Your task to perform on an android device: Check the weather Image 0: 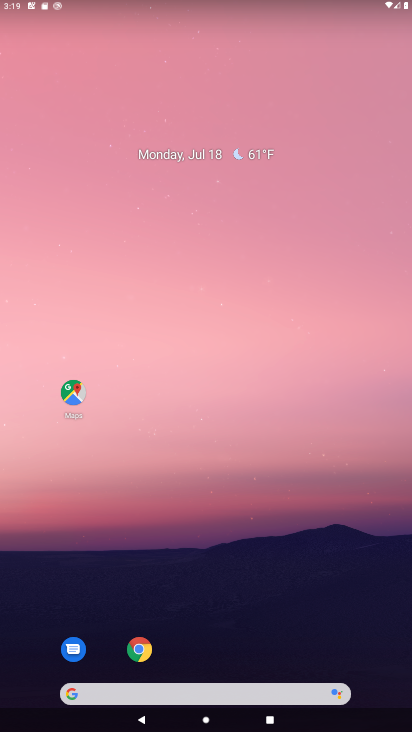
Step 0: click (146, 691)
Your task to perform on an android device: Check the weather Image 1: 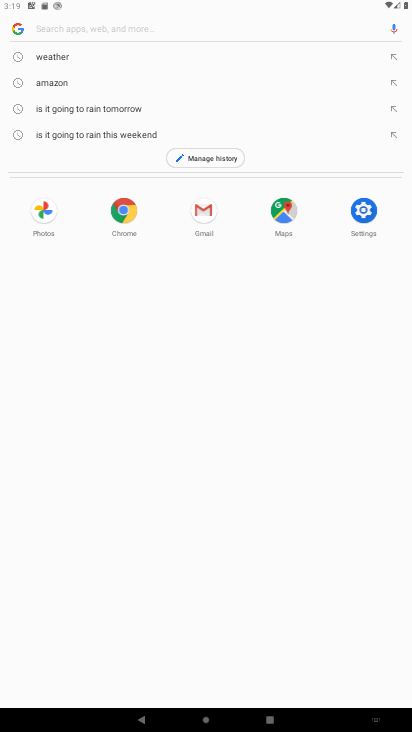
Step 1: type "weather"
Your task to perform on an android device: Check the weather Image 2: 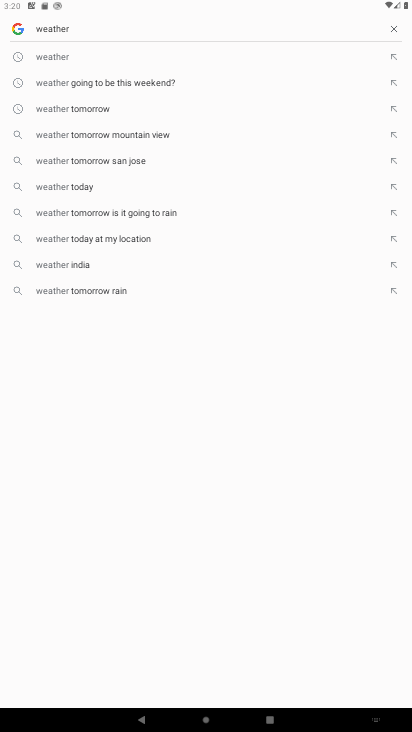
Step 2: click (40, 56)
Your task to perform on an android device: Check the weather Image 3: 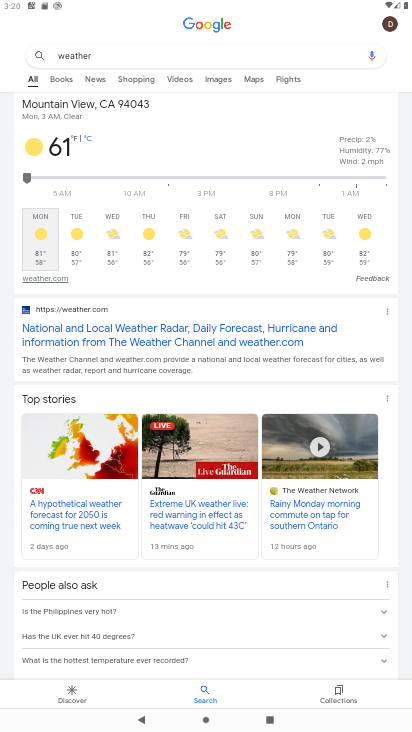
Step 3: task complete